Your task to perform on an android device: check android version Image 0: 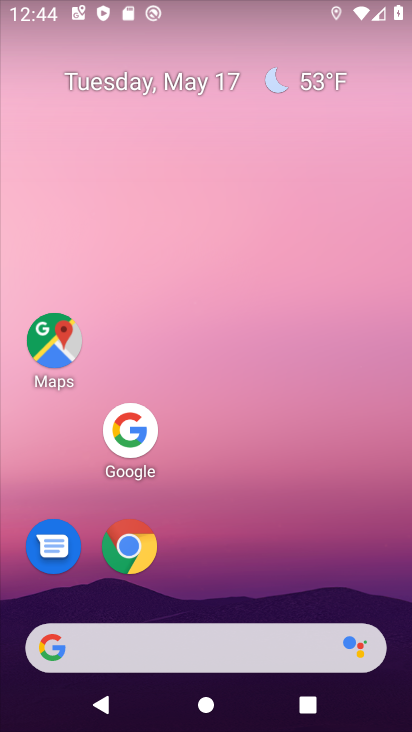
Step 0: drag from (211, 560) to (245, 112)
Your task to perform on an android device: check android version Image 1: 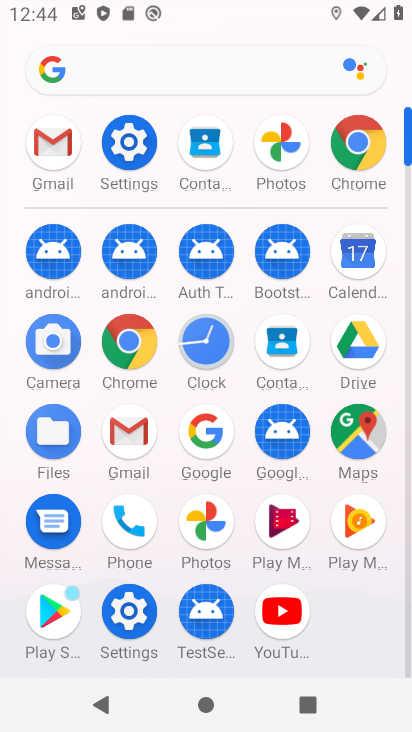
Step 1: click (127, 606)
Your task to perform on an android device: check android version Image 2: 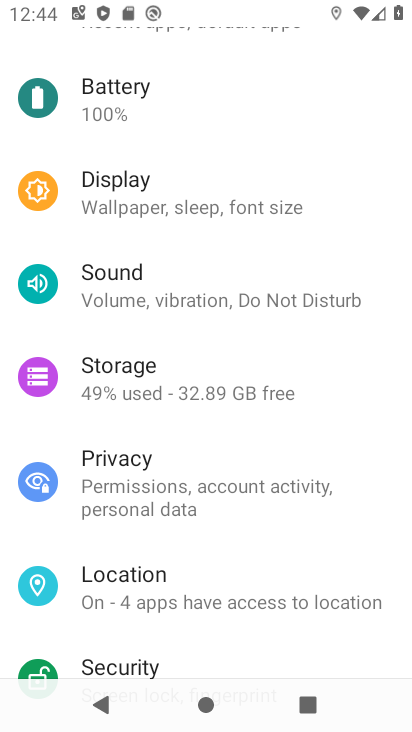
Step 2: drag from (272, 612) to (288, 24)
Your task to perform on an android device: check android version Image 3: 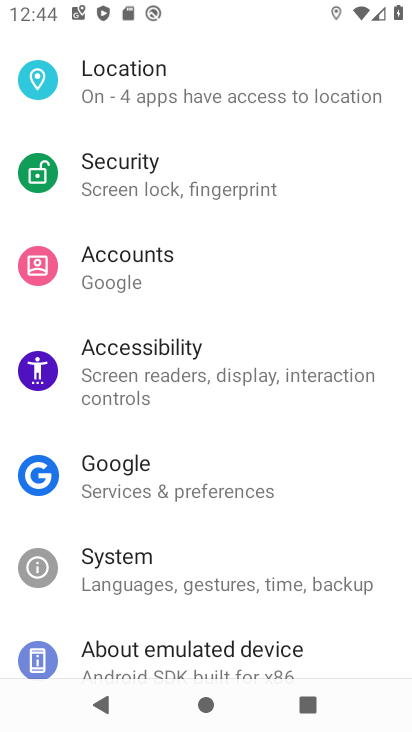
Step 3: drag from (162, 643) to (209, 236)
Your task to perform on an android device: check android version Image 4: 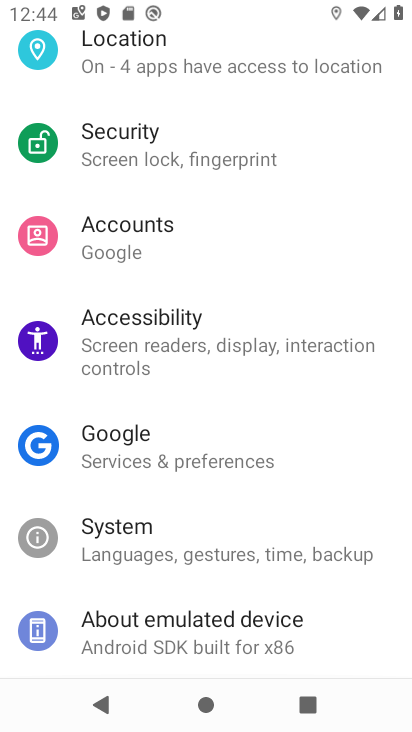
Step 4: click (160, 632)
Your task to perform on an android device: check android version Image 5: 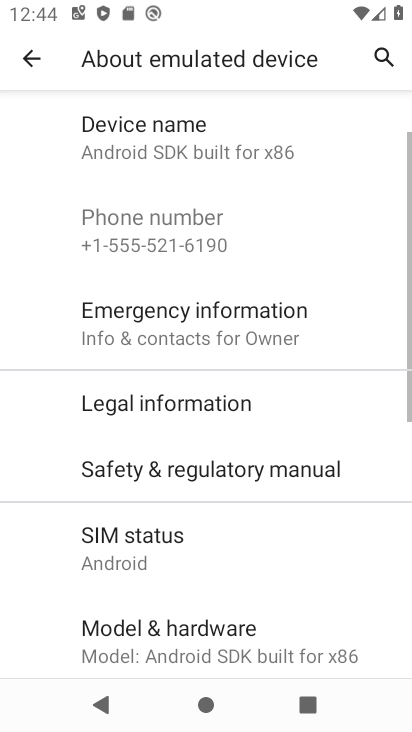
Step 5: drag from (192, 551) to (220, 107)
Your task to perform on an android device: check android version Image 6: 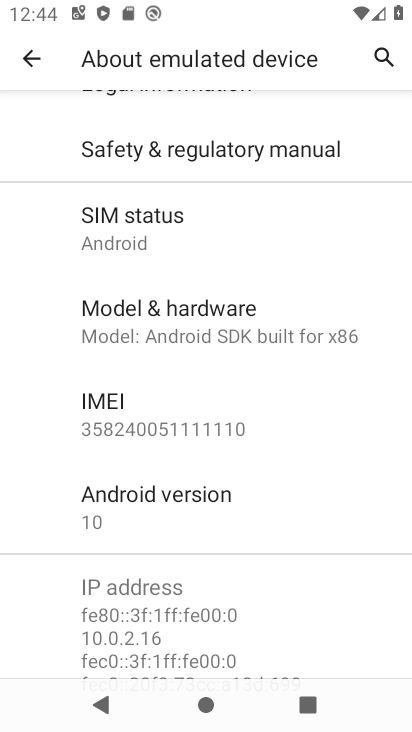
Step 6: click (164, 519)
Your task to perform on an android device: check android version Image 7: 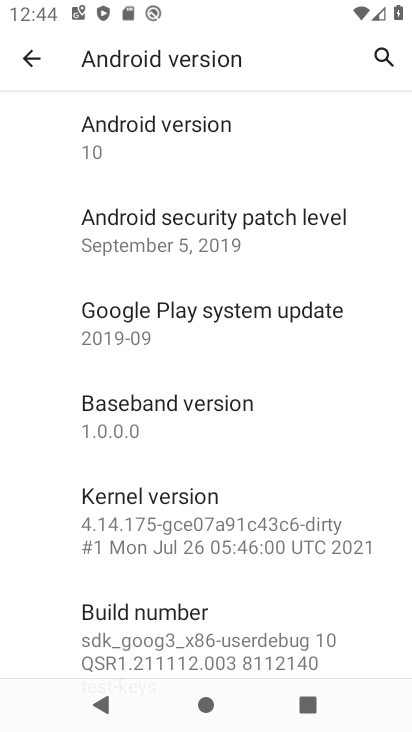
Step 7: task complete